Your task to perform on an android device: Open settings on Google Maps Image 0: 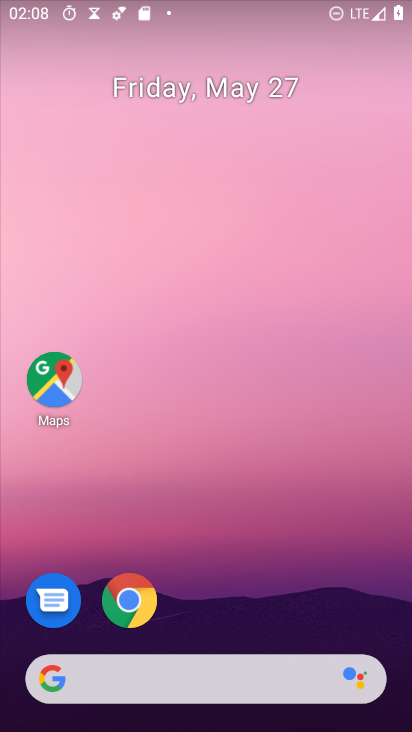
Step 0: click (46, 384)
Your task to perform on an android device: Open settings on Google Maps Image 1: 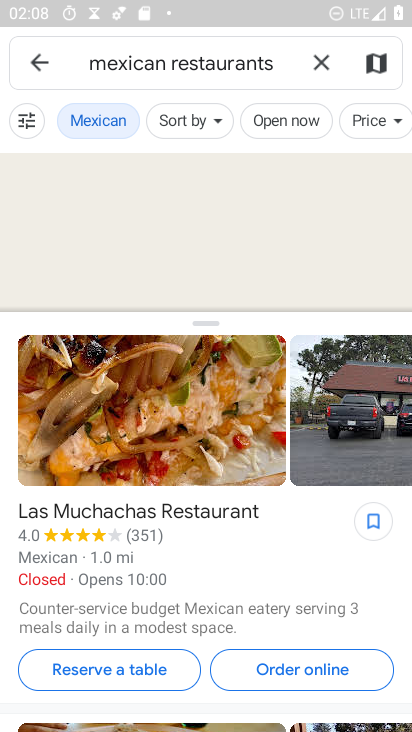
Step 1: click (327, 66)
Your task to perform on an android device: Open settings on Google Maps Image 2: 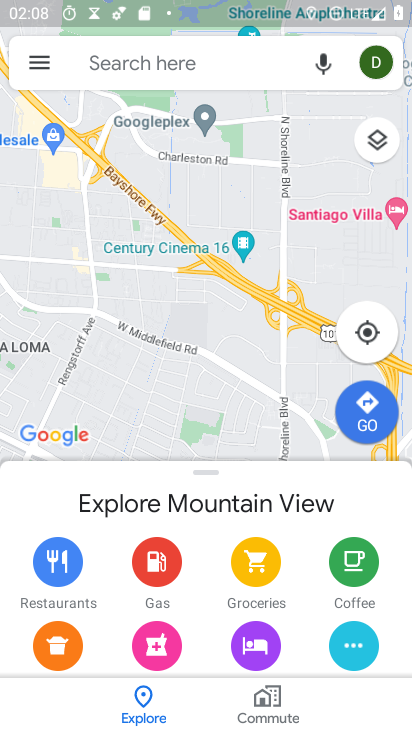
Step 2: click (38, 48)
Your task to perform on an android device: Open settings on Google Maps Image 3: 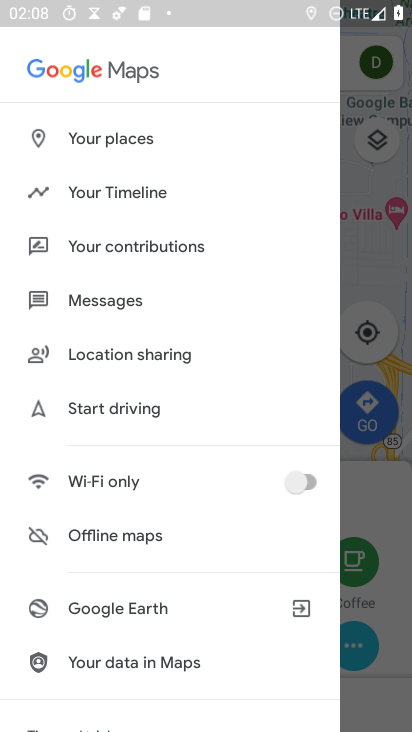
Step 3: drag from (156, 599) to (138, 191)
Your task to perform on an android device: Open settings on Google Maps Image 4: 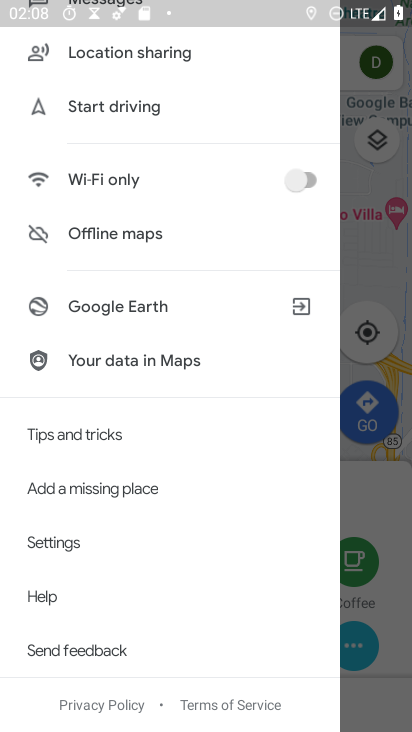
Step 4: click (64, 538)
Your task to perform on an android device: Open settings on Google Maps Image 5: 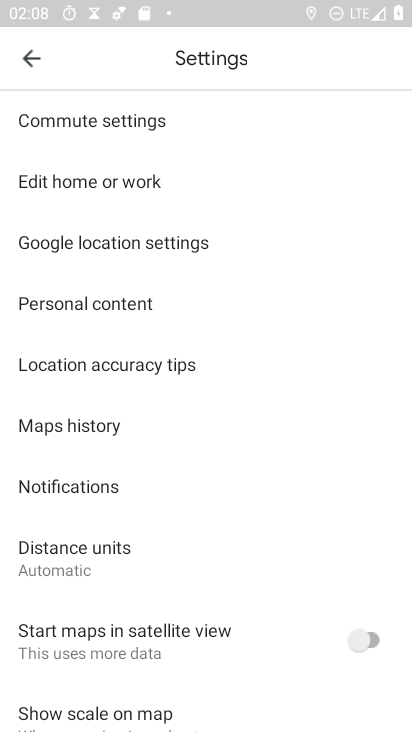
Step 5: task complete